Your task to perform on an android device: turn off location Image 0: 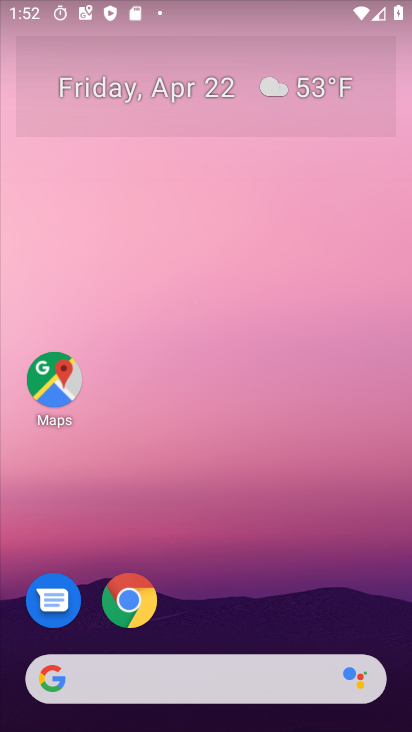
Step 0: drag from (215, 714) to (204, 158)
Your task to perform on an android device: turn off location Image 1: 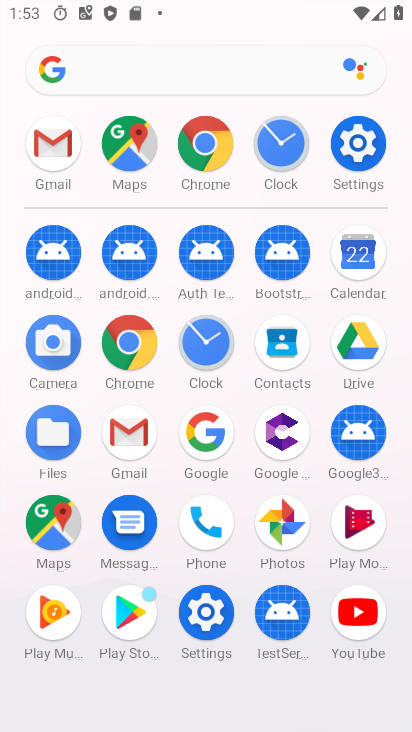
Step 1: click (352, 149)
Your task to perform on an android device: turn off location Image 2: 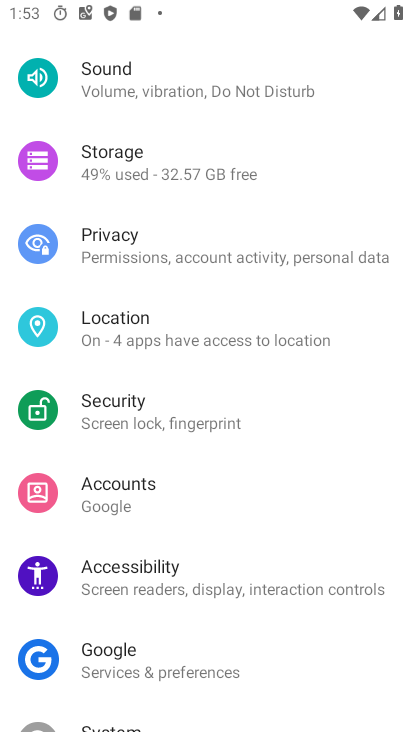
Step 2: click (115, 333)
Your task to perform on an android device: turn off location Image 3: 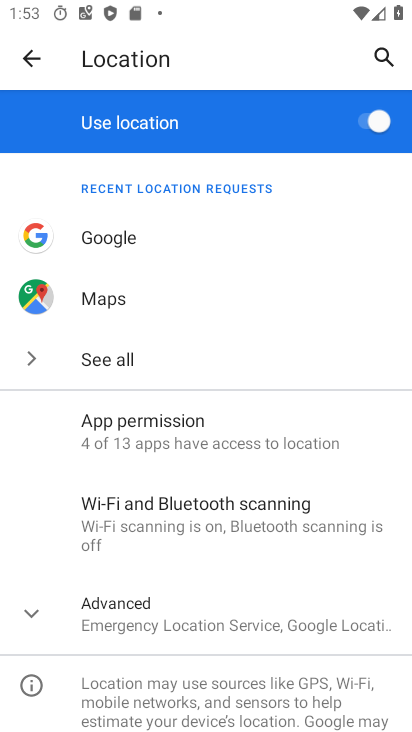
Step 3: click (366, 116)
Your task to perform on an android device: turn off location Image 4: 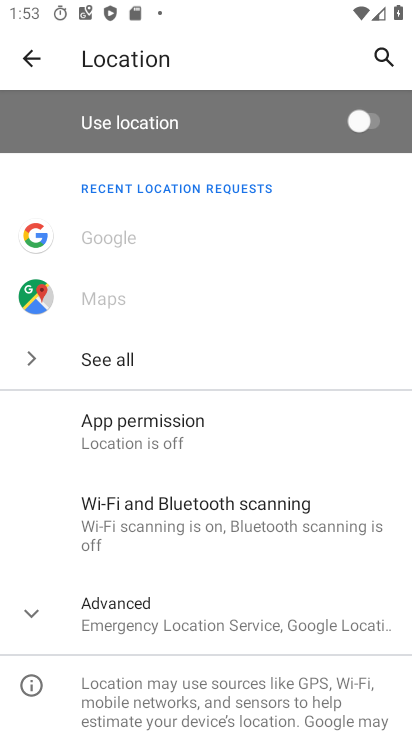
Step 4: task complete